Your task to perform on an android device: change the clock display to digital Image 0: 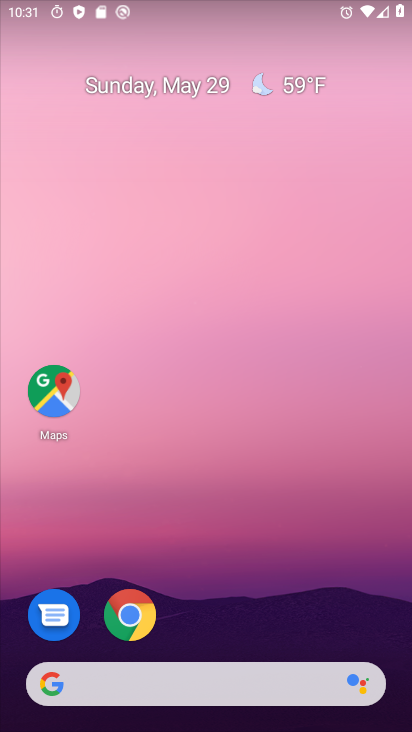
Step 0: drag from (217, 609) to (272, 72)
Your task to perform on an android device: change the clock display to digital Image 1: 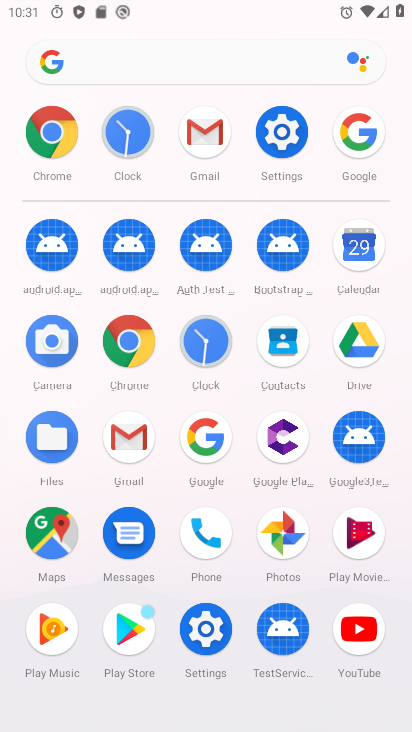
Step 1: click (196, 337)
Your task to perform on an android device: change the clock display to digital Image 2: 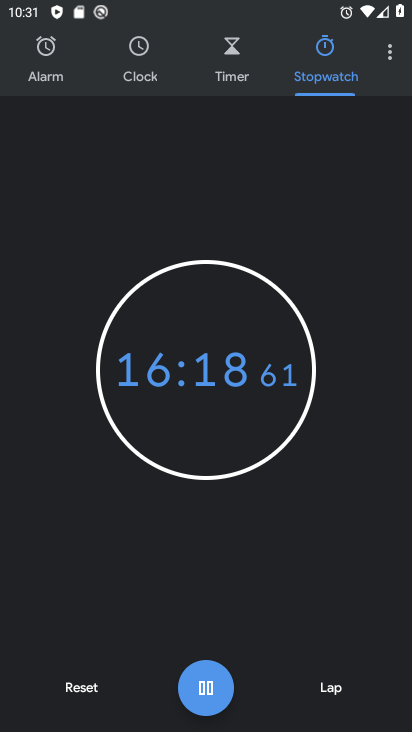
Step 2: click (379, 50)
Your task to perform on an android device: change the clock display to digital Image 3: 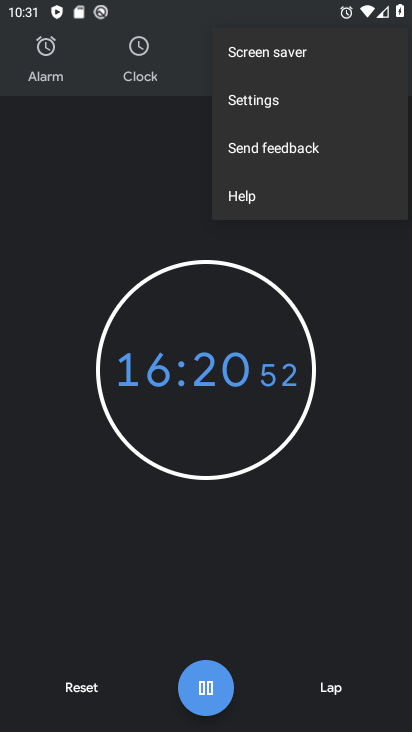
Step 3: click (261, 94)
Your task to perform on an android device: change the clock display to digital Image 4: 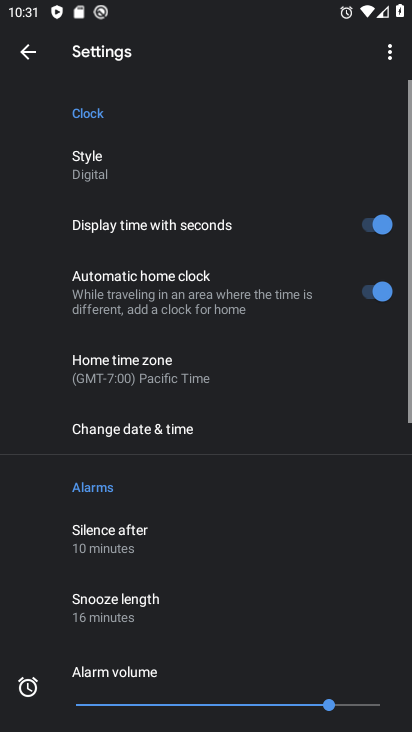
Step 4: click (159, 164)
Your task to perform on an android device: change the clock display to digital Image 5: 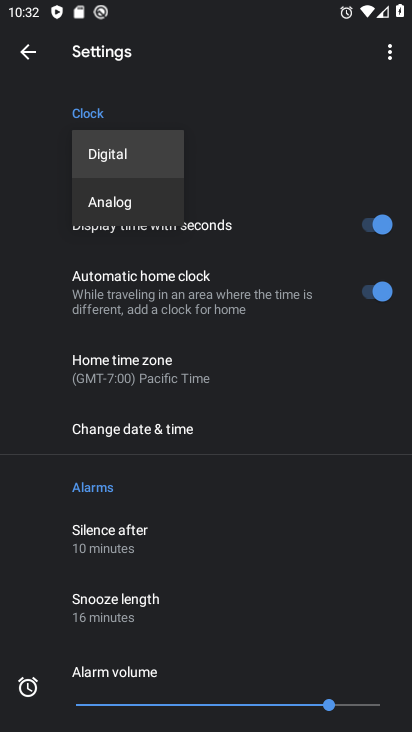
Step 5: task complete